Your task to perform on an android device: move an email to a new category in the gmail app Image 0: 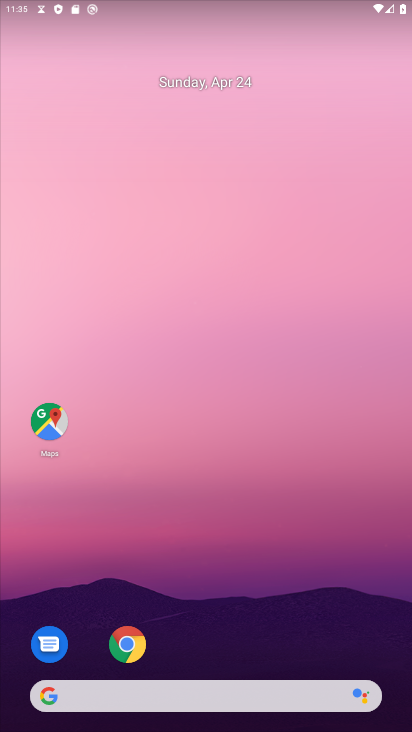
Step 0: drag from (361, 626) to (405, 88)
Your task to perform on an android device: move an email to a new category in the gmail app Image 1: 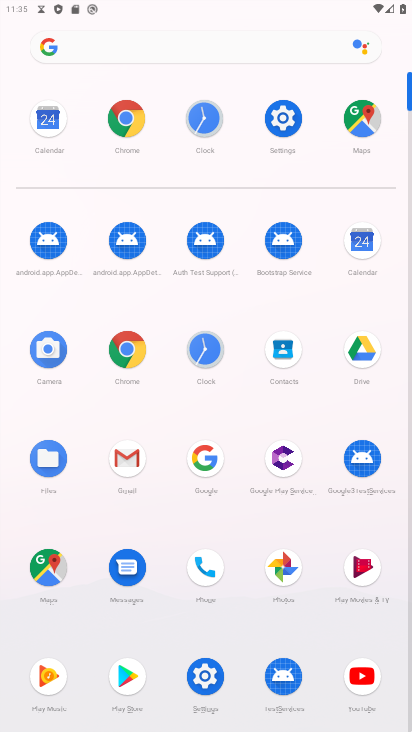
Step 1: click (122, 458)
Your task to perform on an android device: move an email to a new category in the gmail app Image 2: 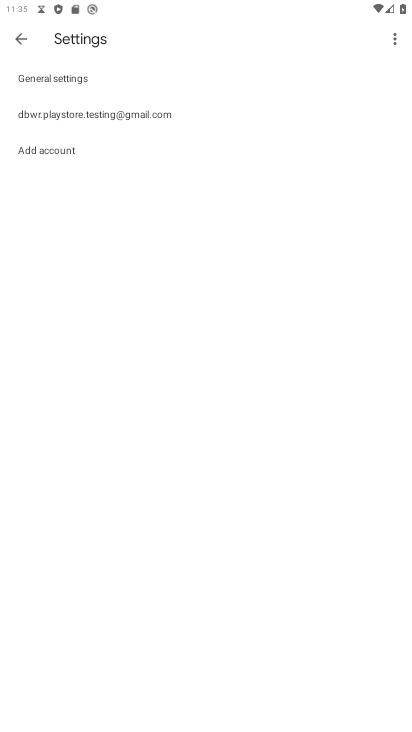
Step 2: click (19, 39)
Your task to perform on an android device: move an email to a new category in the gmail app Image 3: 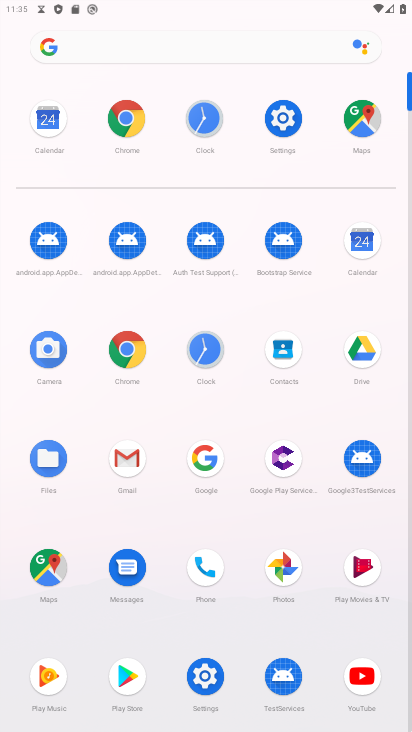
Step 3: click (128, 462)
Your task to perform on an android device: move an email to a new category in the gmail app Image 4: 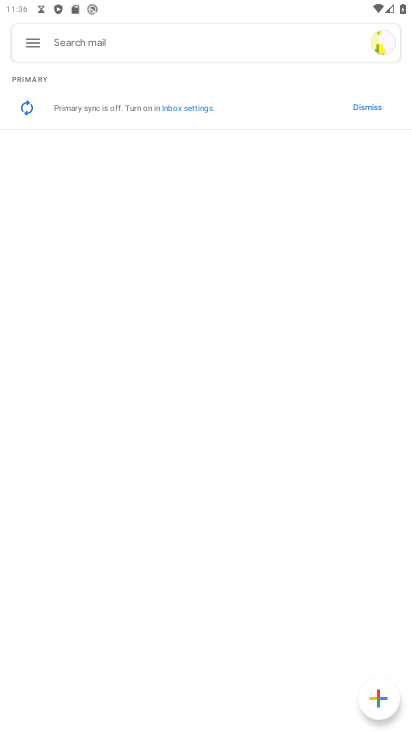
Step 4: click (29, 42)
Your task to perform on an android device: move an email to a new category in the gmail app Image 5: 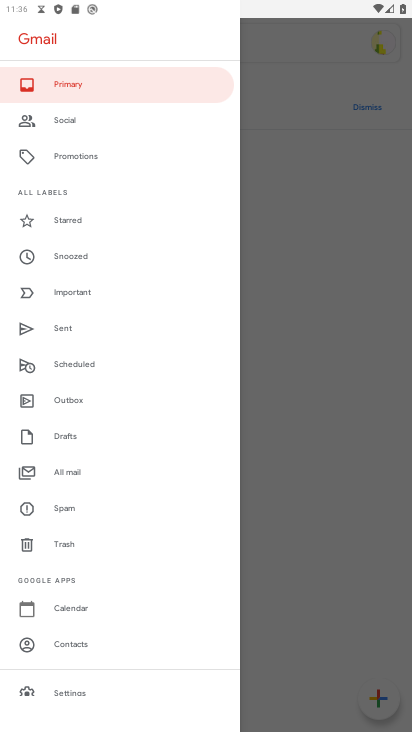
Step 5: click (79, 472)
Your task to perform on an android device: move an email to a new category in the gmail app Image 6: 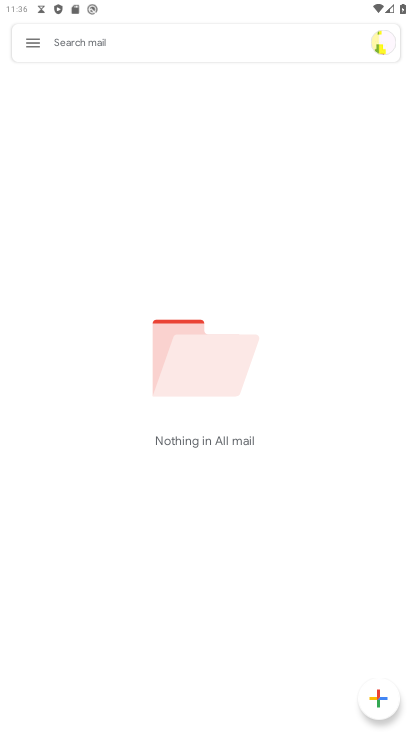
Step 6: task complete